Your task to perform on an android device: What's the weather going to be this weekend? Image 0: 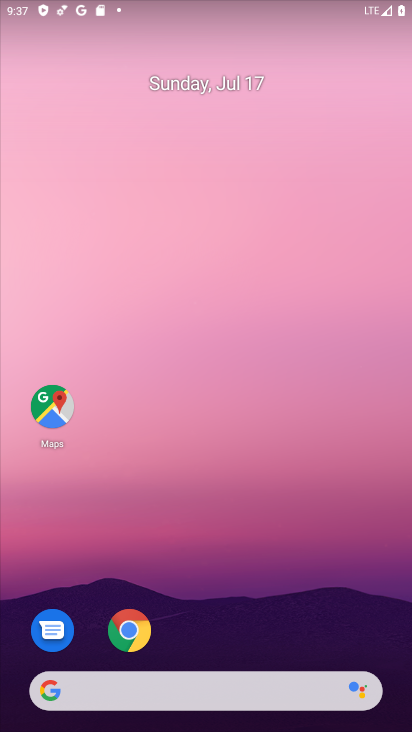
Step 0: press home button
Your task to perform on an android device: What's the weather going to be this weekend? Image 1: 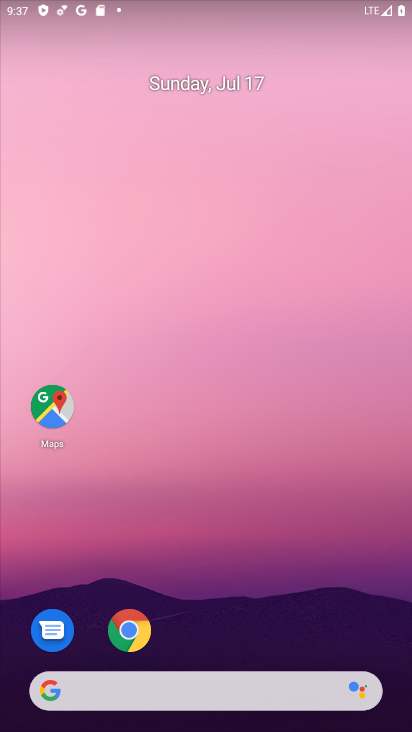
Step 1: drag from (258, 495) to (305, 61)
Your task to perform on an android device: What's the weather going to be this weekend? Image 2: 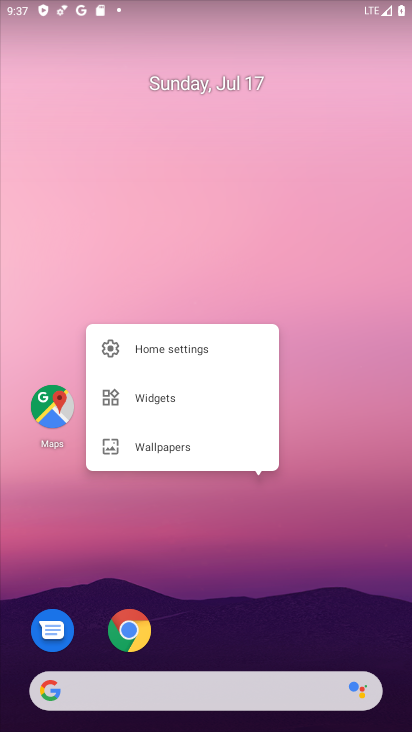
Step 2: click (70, 211)
Your task to perform on an android device: What's the weather going to be this weekend? Image 3: 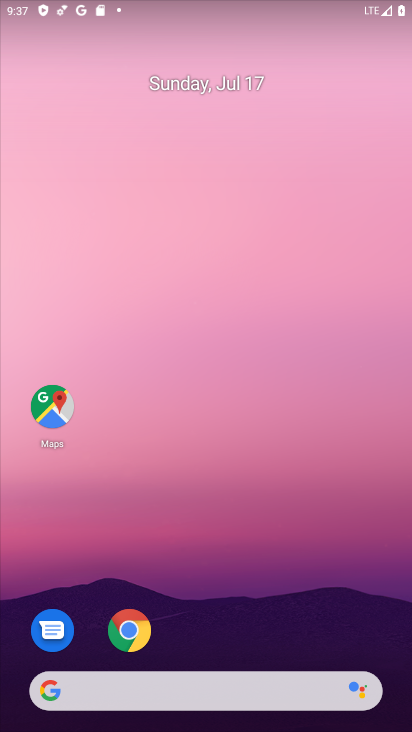
Step 3: task complete